Your task to perform on an android device: Open CNN.com Image 0: 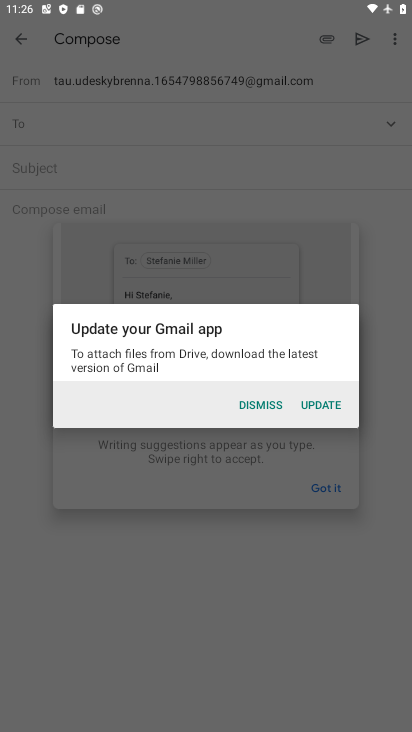
Step 0: press home button
Your task to perform on an android device: Open CNN.com Image 1: 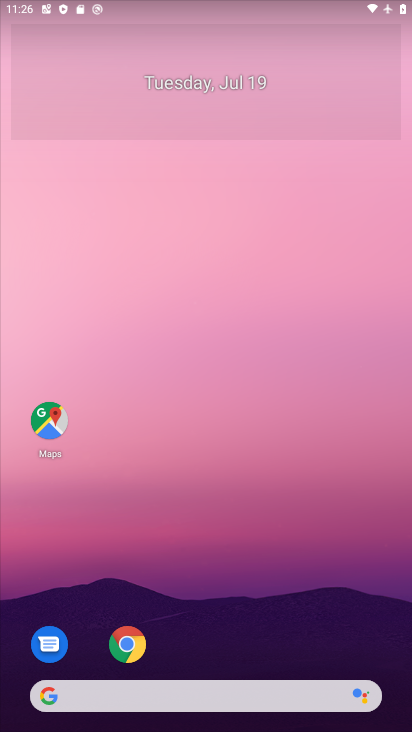
Step 1: click (123, 701)
Your task to perform on an android device: Open CNN.com Image 2: 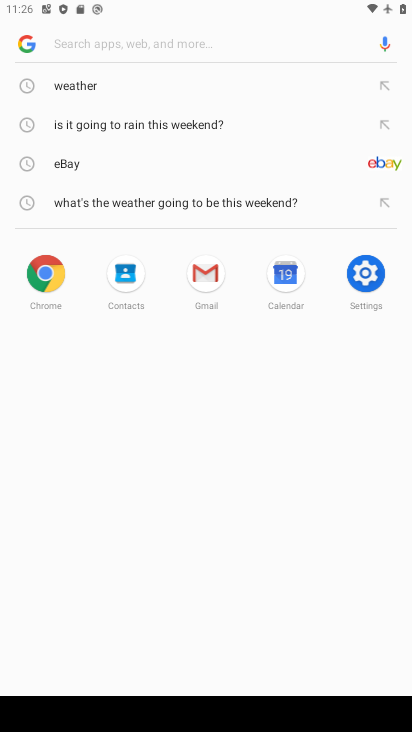
Step 2: type "CNN.com"
Your task to perform on an android device: Open CNN.com Image 3: 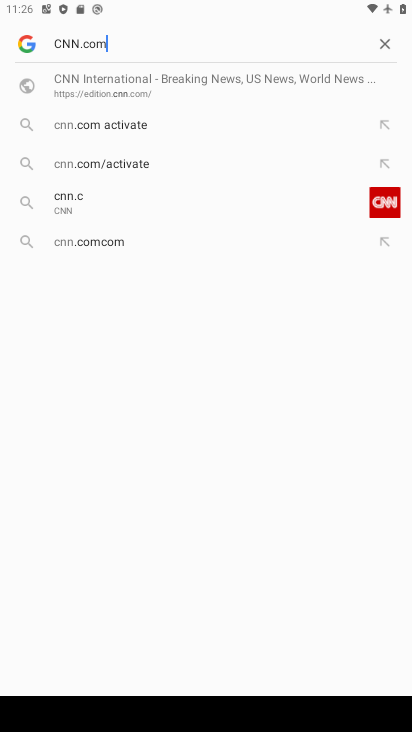
Step 3: type ""
Your task to perform on an android device: Open CNN.com Image 4: 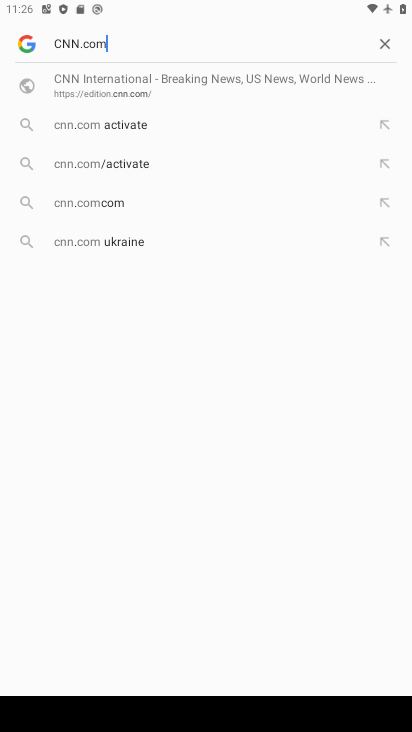
Step 4: task complete